Your task to perform on an android device: toggle airplane mode Image 0: 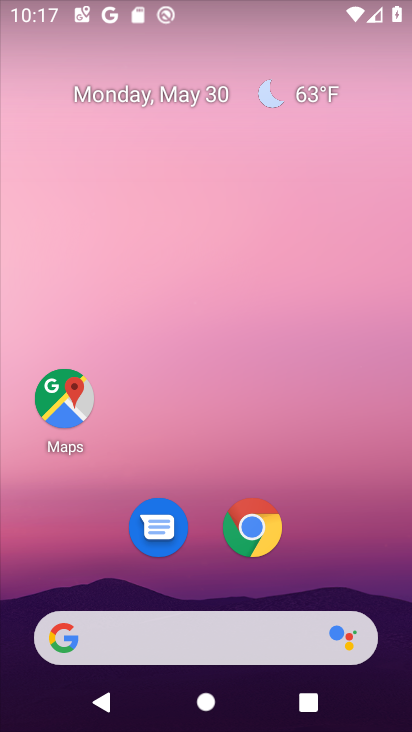
Step 0: drag from (326, 533) to (312, 154)
Your task to perform on an android device: toggle airplane mode Image 1: 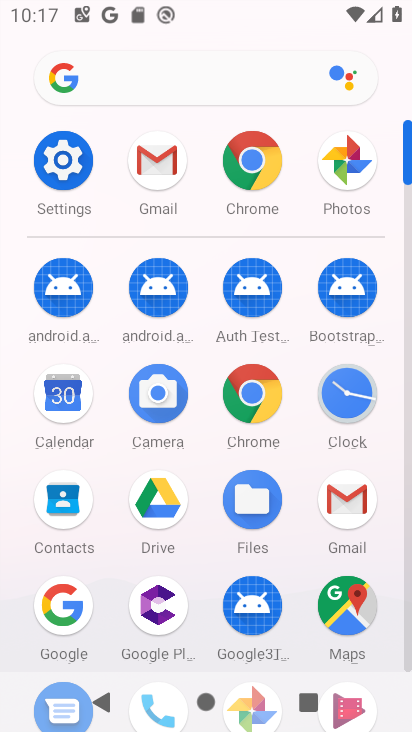
Step 1: click (67, 148)
Your task to perform on an android device: toggle airplane mode Image 2: 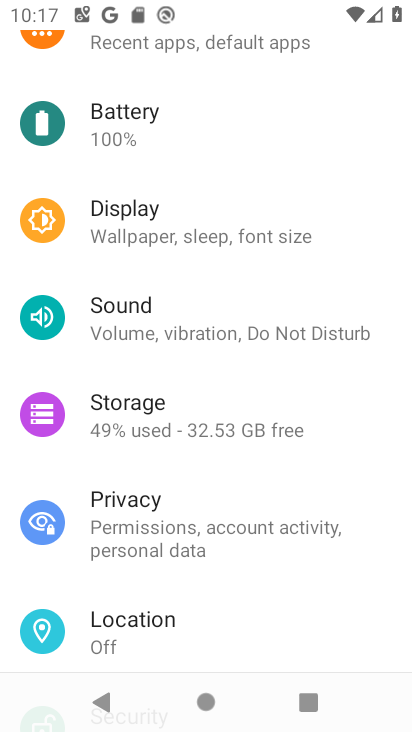
Step 2: drag from (216, 147) to (224, 606)
Your task to perform on an android device: toggle airplane mode Image 3: 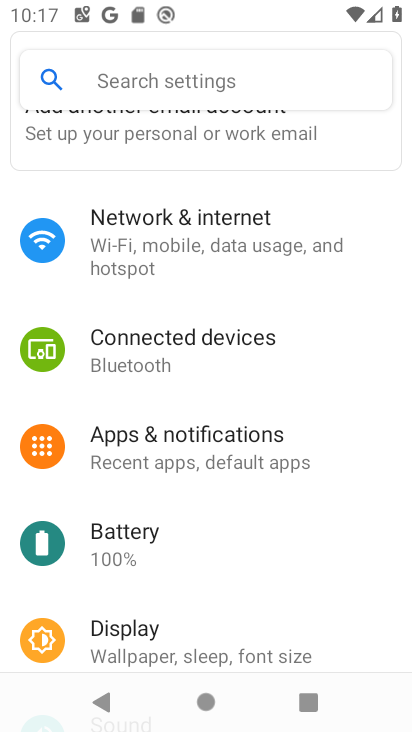
Step 3: drag from (145, 142) to (171, 401)
Your task to perform on an android device: toggle airplane mode Image 4: 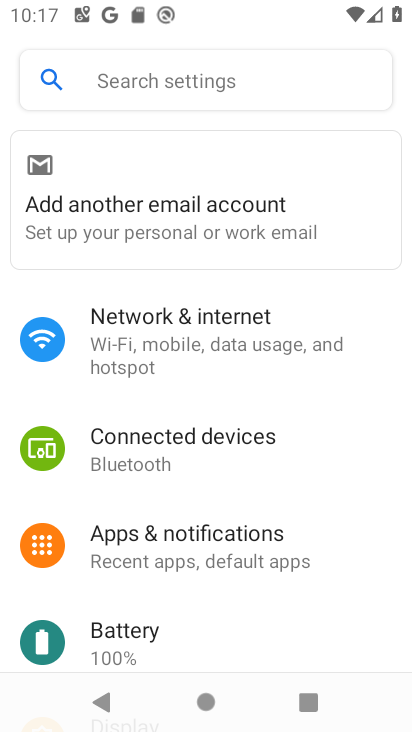
Step 4: click (182, 334)
Your task to perform on an android device: toggle airplane mode Image 5: 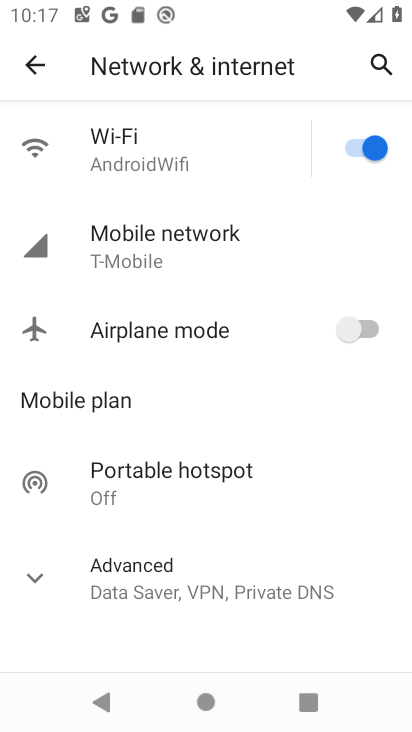
Step 5: click (356, 326)
Your task to perform on an android device: toggle airplane mode Image 6: 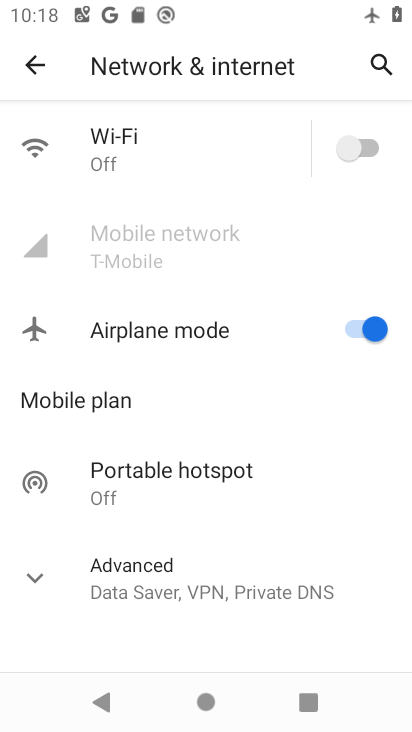
Step 6: task complete